Your task to perform on an android device: delete the emails in spam in the gmail app Image 0: 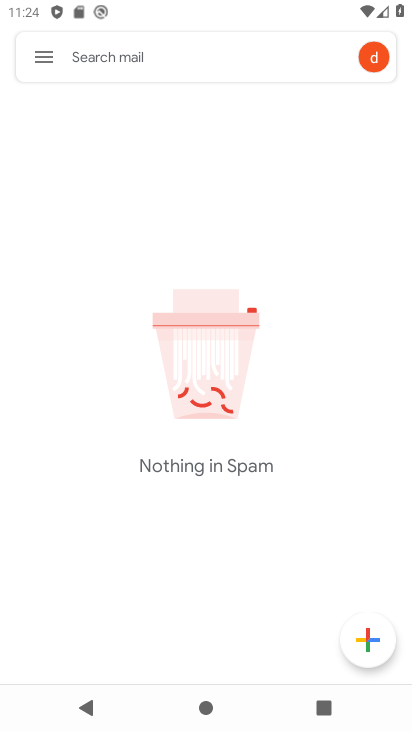
Step 0: press back button
Your task to perform on an android device: delete the emails in spam in the gmail app Image 1: 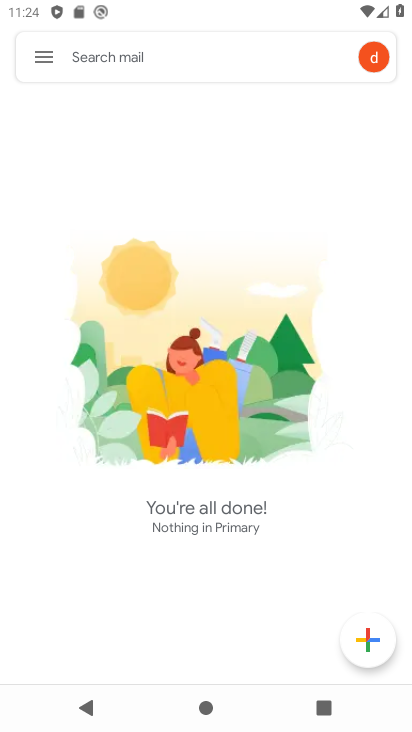
Step 1: press home button
Your task to perform on an android device: delete the emails in spam in the gmail app Image 2: 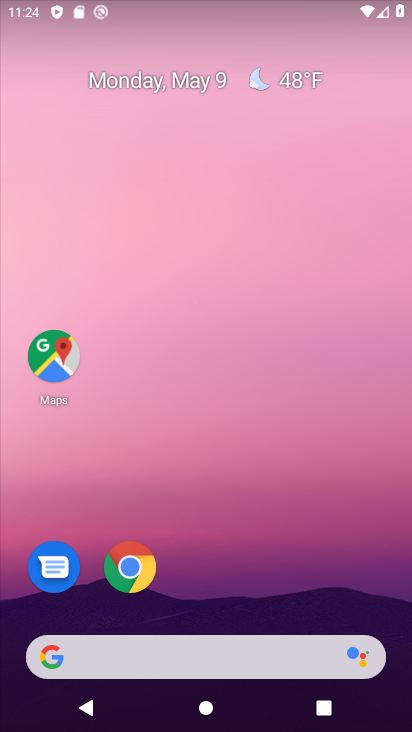
Step 2: drag from (186, 629) to (297, 55)
Your task to perform on an android device: delete the emails in spam in the gmail app Image 3: 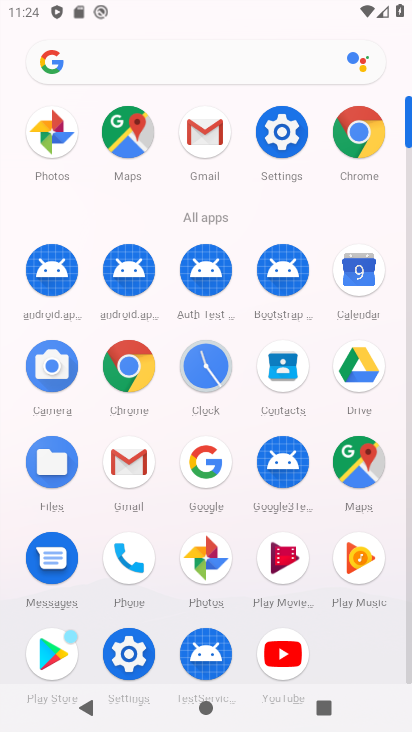
Step 3: click (202, 135)
Your task to perform on an android device: delete the emails in spam in the gmail app Image 4: 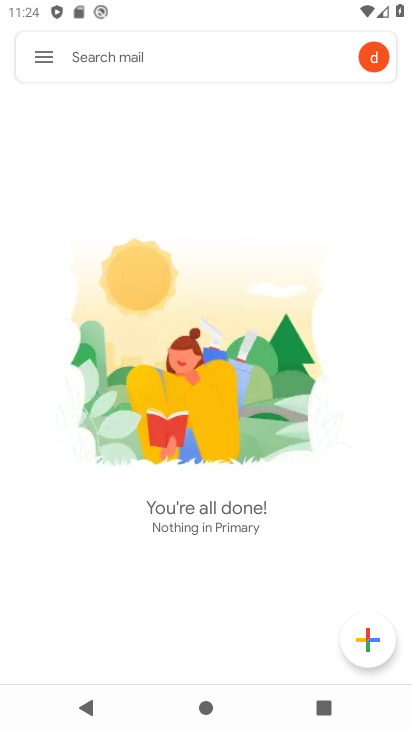
Step 4: click (57, 50)
Your task to perform on an android device: delete the emails in spam in the gmail app Image 5: 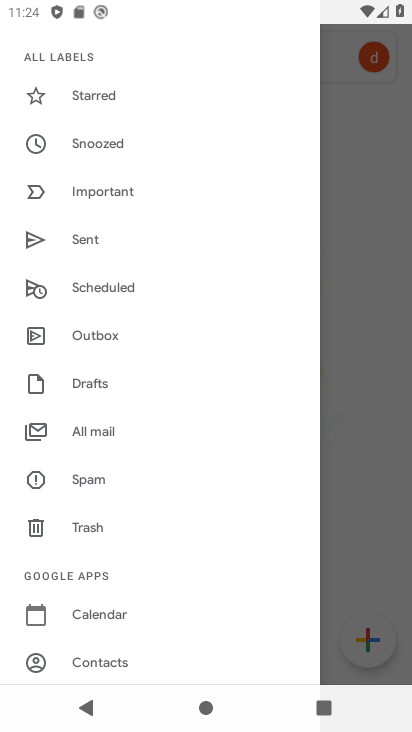
Step 5: click (127, 478)
Your task to perform on an android device: delete the emails in spam in the gmail app Image 6: 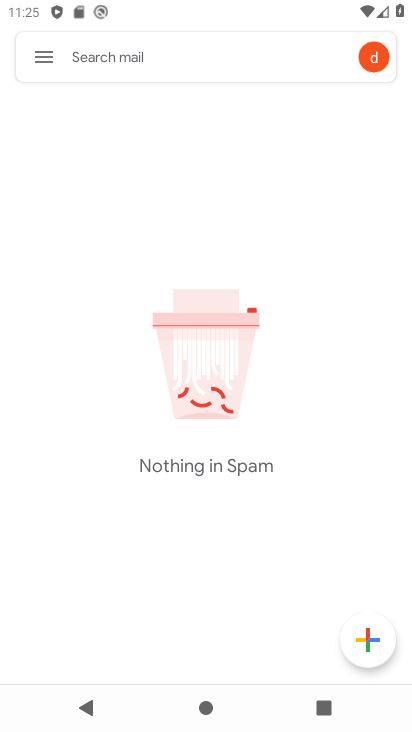
Step 6: task complete